Your task to perform on an android device: Open the map Image 0: 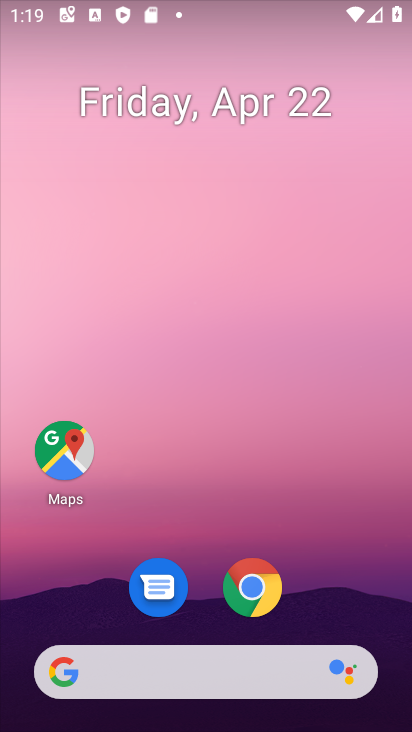
Step 0: click (67, 450)
Your task to perform on an android device: Open the map Image 1: 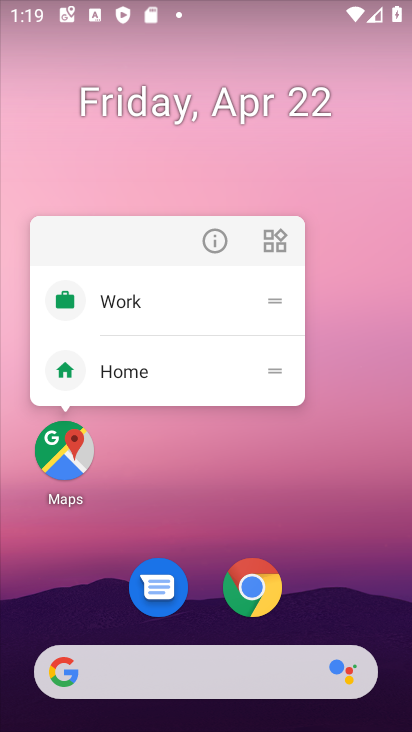
Step 1: click (225, 238)
Your task to perform on an android device: Open the map Image 2: 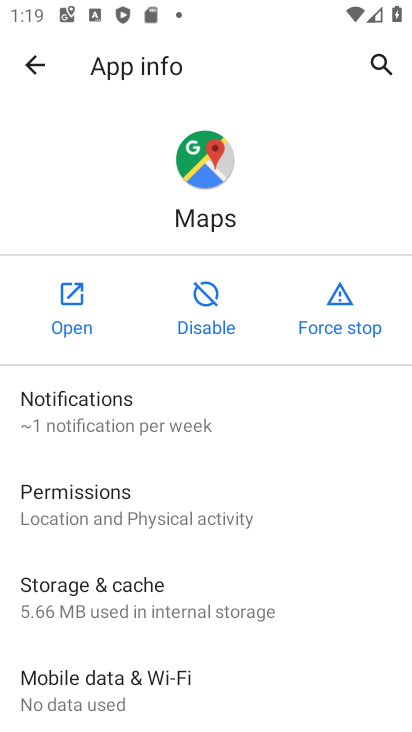
Step 2: click (72, 312)
Your task to perform on an android device: Open the map Image 3: 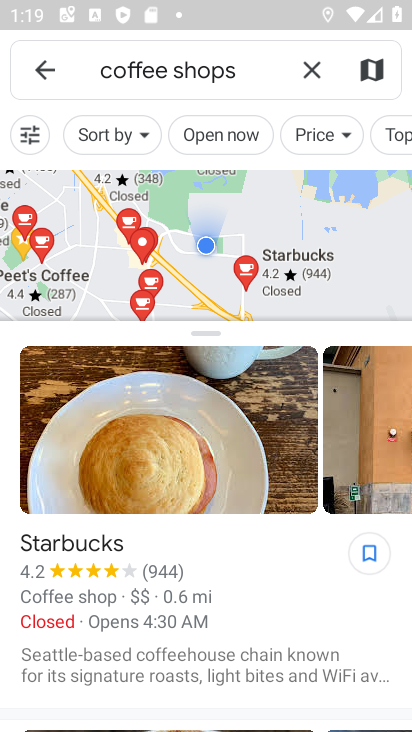
Step 3: task complete